Your task to perform on an android device: see sites visited before in the chrome app Image 0: 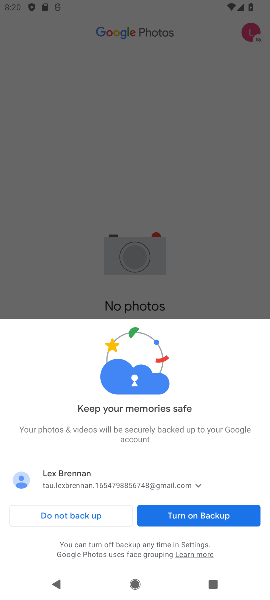
Step 0: press home button
Your task to perform on an android device: see sites visited before in the chrome app Image 1: 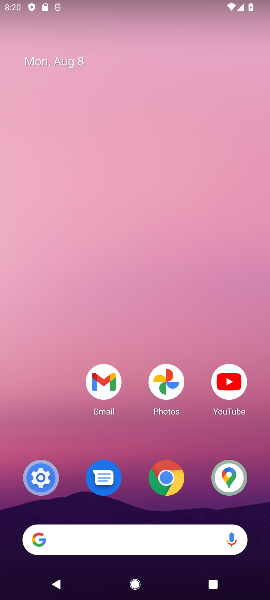
Step 1: click (166, 478)
Your task to perform on an android device: see sites visited before in the chrome app Image 2: 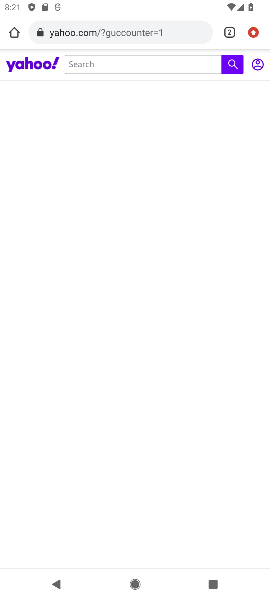
Step 2: task complete